Your task to perform on an android device: visit the assistant section in the google photos Image 0: 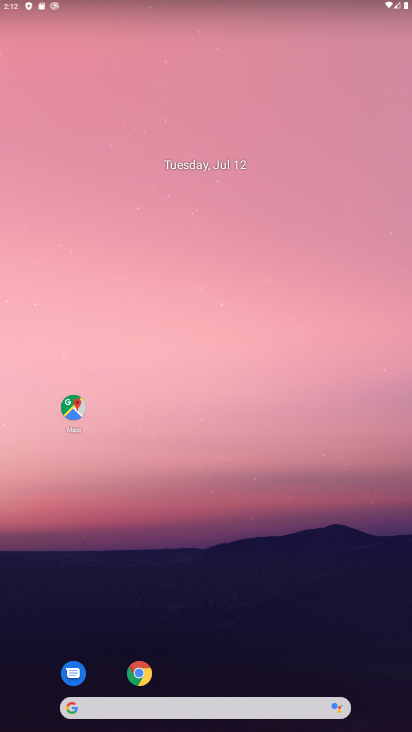
Step 0: drag from (238, 566) to (227, 175)
Your task to perform on an android device: visit the assistant section in the google photos Image 1: 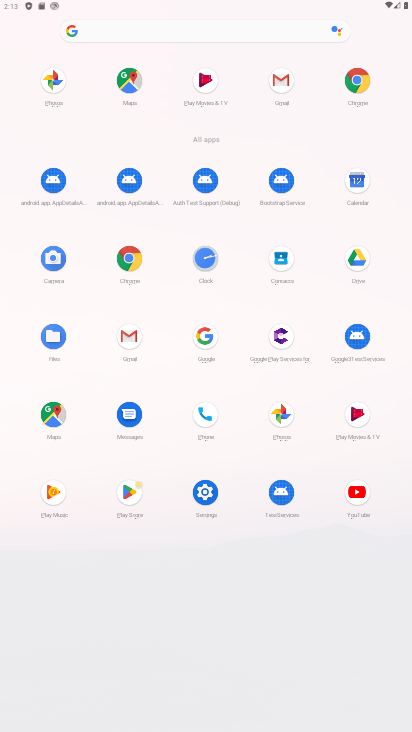
Step 1: click (55, 72)
Your task to perform on an android device: visit the assistant section in the google photos Image 2: 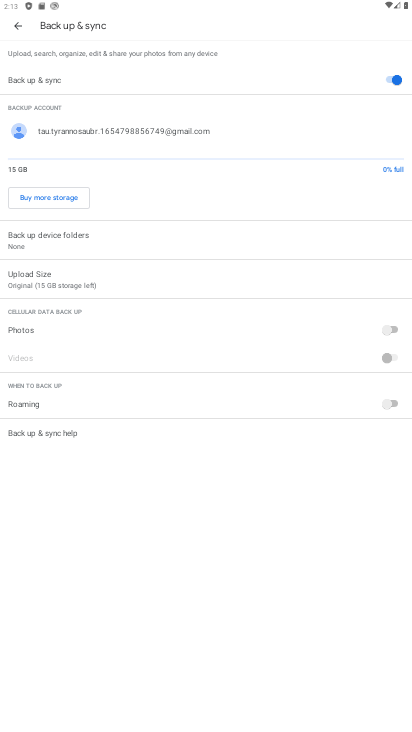
Step 2: press home button
Your task to perform on an android device: visit the assistant section in the google photos Image 3: 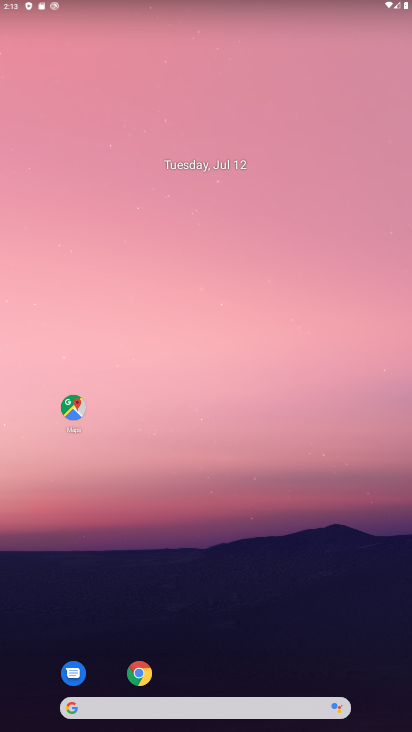
Step 3: drag from (250, 502) to (267, 169)
Your task to perform on an android device: visit the assistant section in the google photos Image 4: 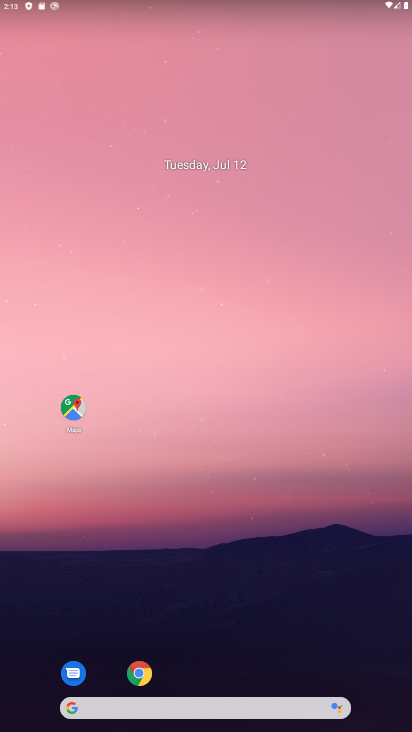
Step 4: drag from (304, 615) to (305, 180)
Your task to perform on an android device: visit the assistant section in the google photos Image 5: 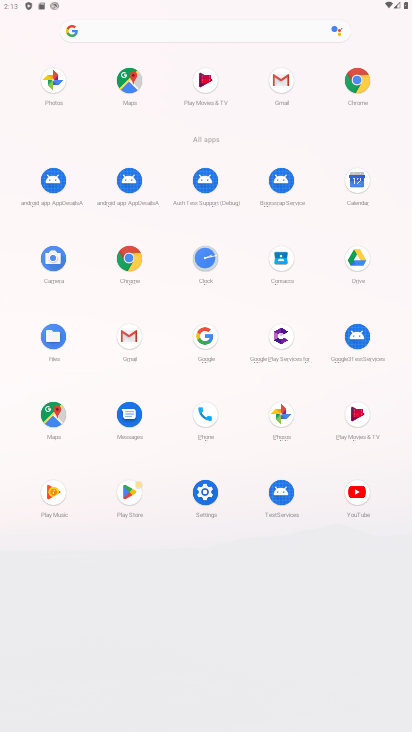
Step 5: click (53, 83)
Your task to perform on an android device: visit the assistant section in the google photos Image 6: 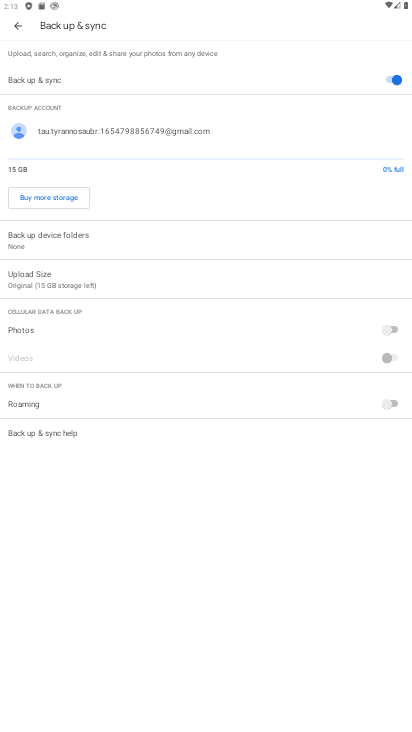
Step 6: click (25, 29)
Your task to perform on an android device: visit the assistant section in the google photos Image 7: 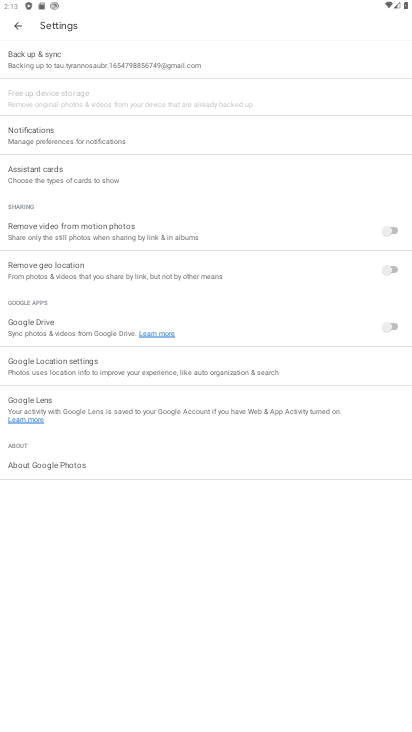
Step 7: click (22, 24)
Your task to perform on an android device: visit the assistant section in the google photos Image 8: 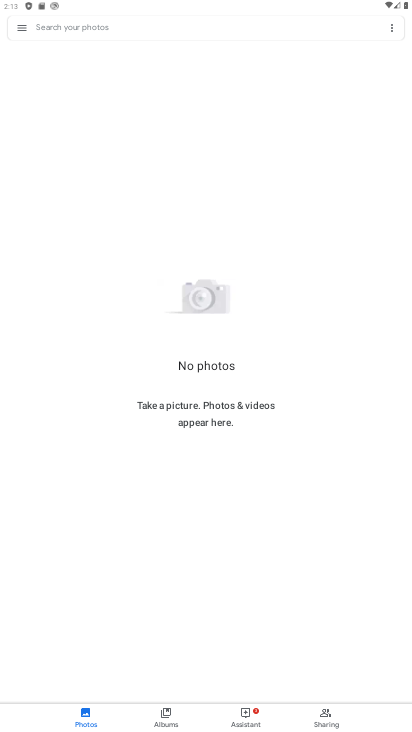
Step 8: click (249, 716)
Your task to perform on an android device: visit the assistant section in the google photos Image 9: 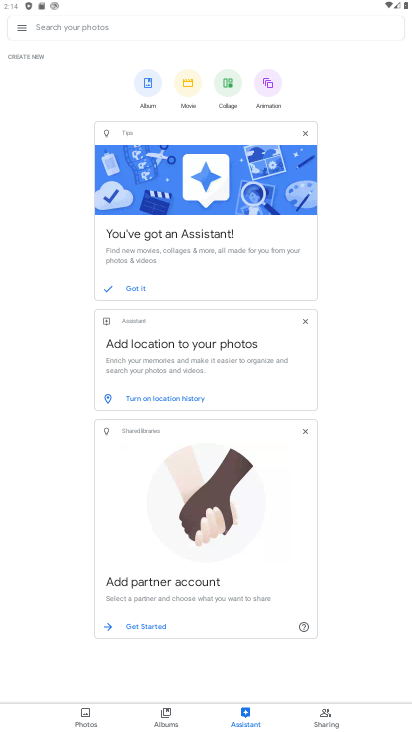
Step 9: task complete